Your task to perform on an android device: Open the calendar and show me this week's events? Image 0: 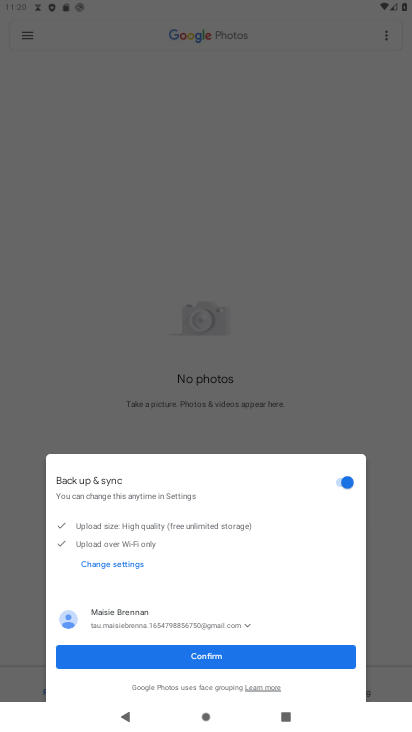
Step 0: press home button
Your task to perform on an android device: Open the calendar and show me this week's events? Image 1: 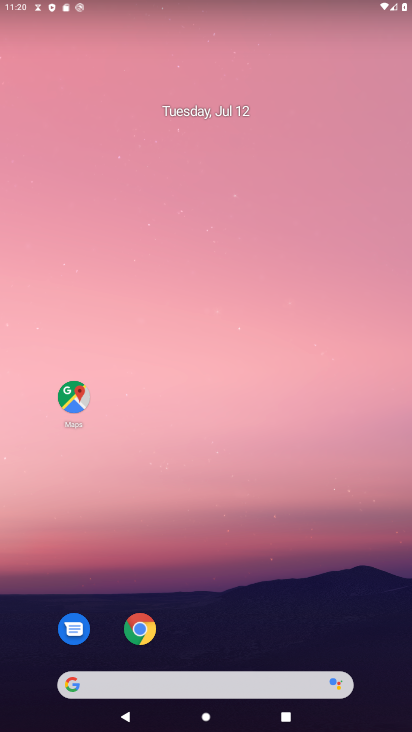
Step 1: drag from (189, 564) to (290, 90)
Your task to perform on an android device: Open the calendar and show me this week's events? Image 2: 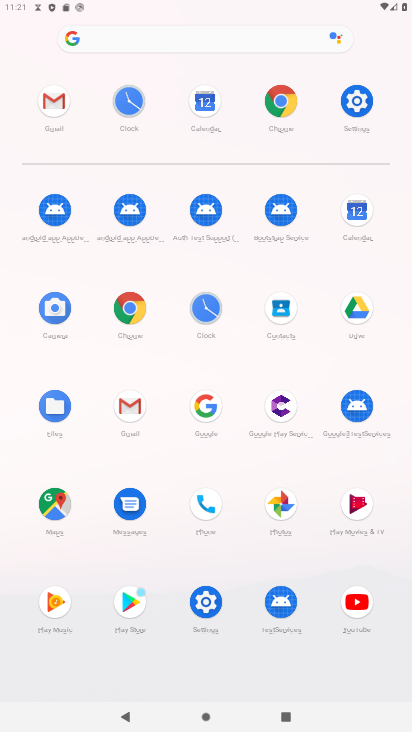
Step 2: click (372, 212)
Your task to perform on an android device: Open the calendar and show me this week's events? Image 3: 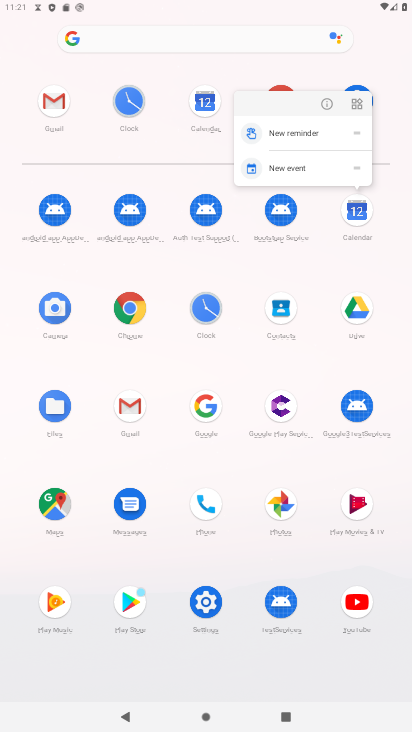
Step 3: click (405, 326)
Your task to perform on an android device: Open the calendar and show me this week's events? Image 4: 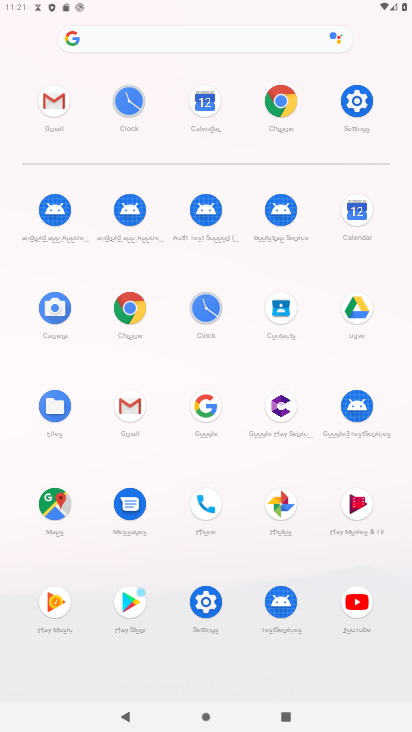
Step 4: click (374, 210)
Your task to perform on an android device: Open the calendar and show me this week's events? Image 5: 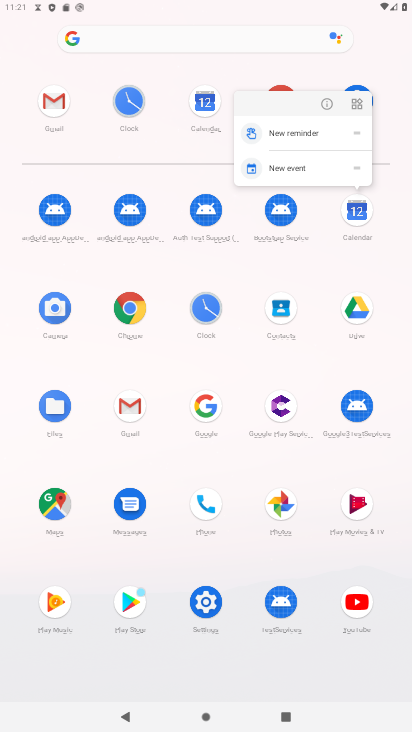
Step 5: click (363, 214)
Your task to perform on an android device: Open the calendar and show me this week's events? Image 6: 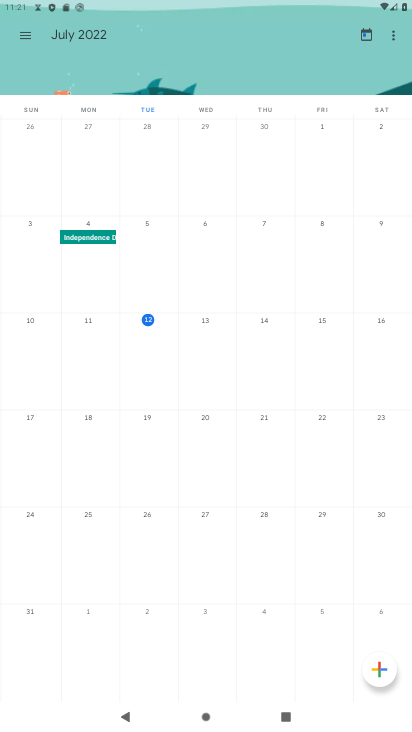
Step 6: task complete